Your task to perform on an android device: Turn on the flashlight Image 0: 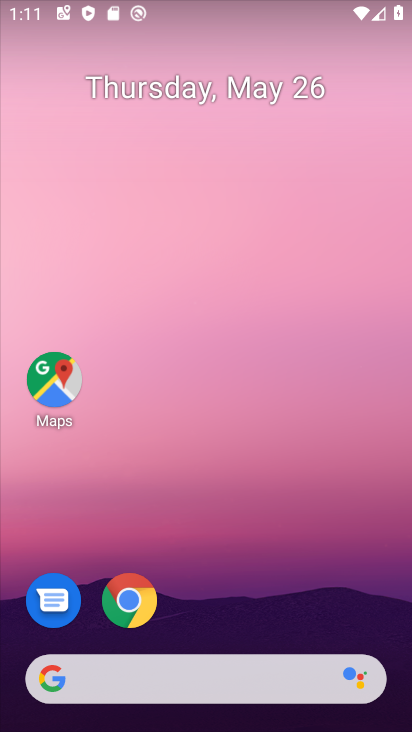
Step 0: drag from (252, 574) to (273, 190)
Your task to perform on an android device: Turn on the flashlight Image 1: 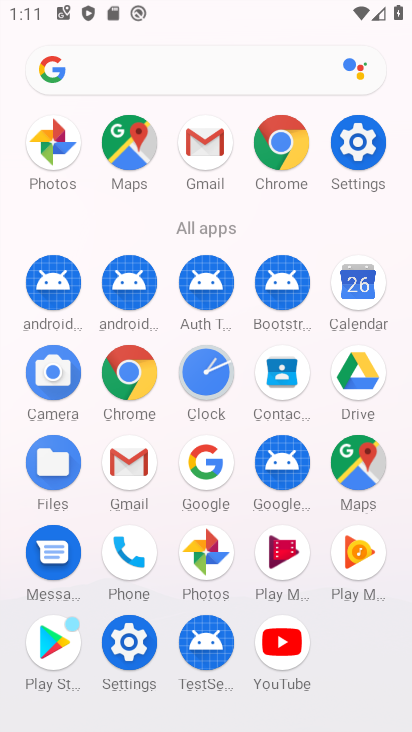
Step 1: click (358, 172)
Your task to perform on an android device: Turn on the flashlight Image 2: 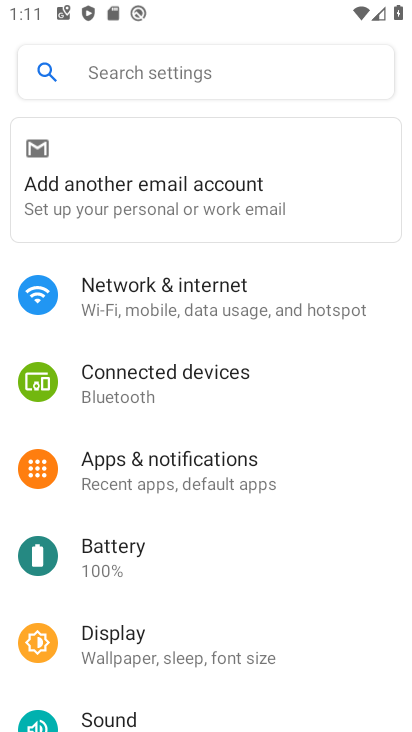
Step 2: drag from (174, 567) to (156, 177)
Your task to perform on an android device: Turn on the flashlight Image 3: 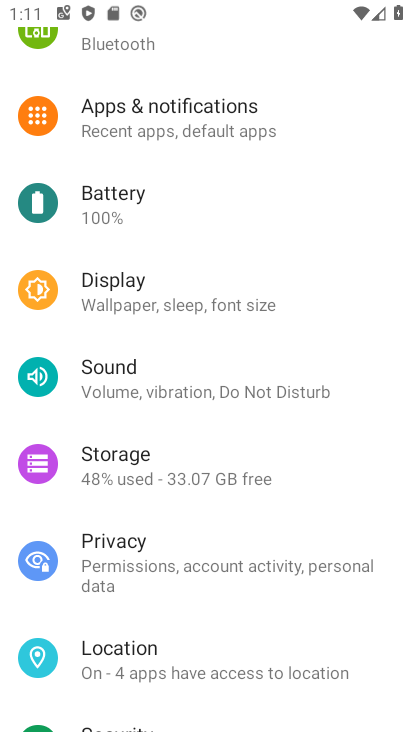
Step 3: click (93, 306)
Your task to perform on an android device: Turn on the flashlight Image 4: 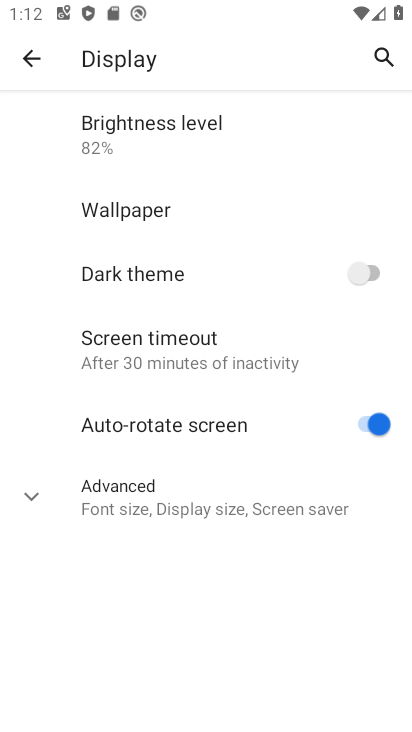
Step 4: task complete